Your task to perform on an android device: turn pop-ups off in chrome Image 0: 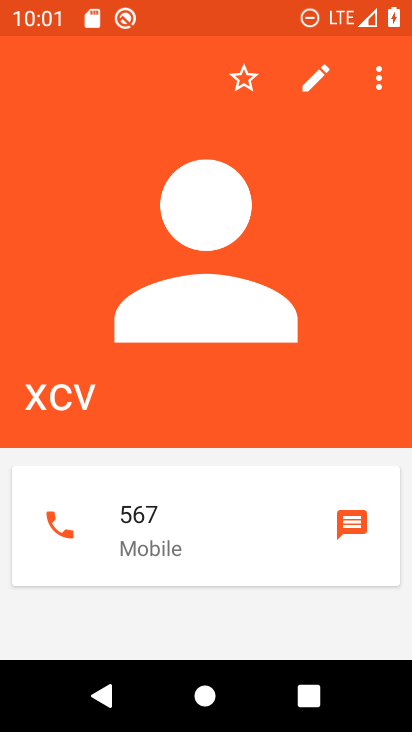
Step 0: press home button
Your task to perform on an android device: turn pop-ups off in chrome Image 1: 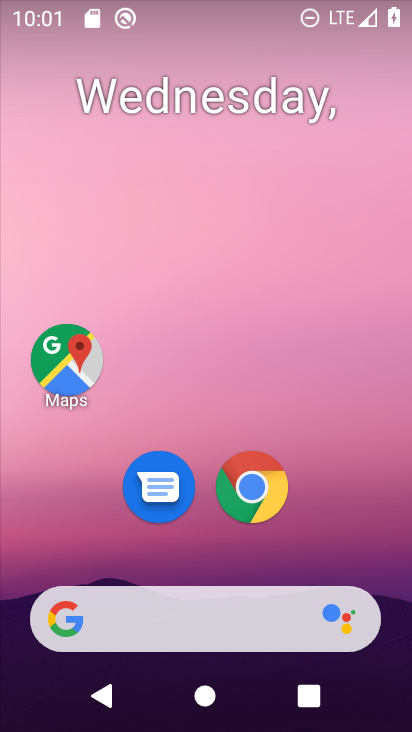
Step 1: click (245, 480)
Your task to perform on an android device: turn pop-ups off in chrome Image 2: 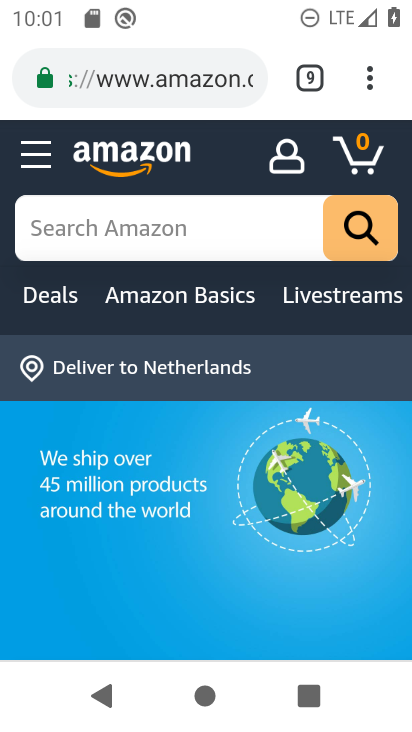
Step 2: click (372, 78)
Your task to perform on an android device: turn pop-ups off in chrome Image 3: 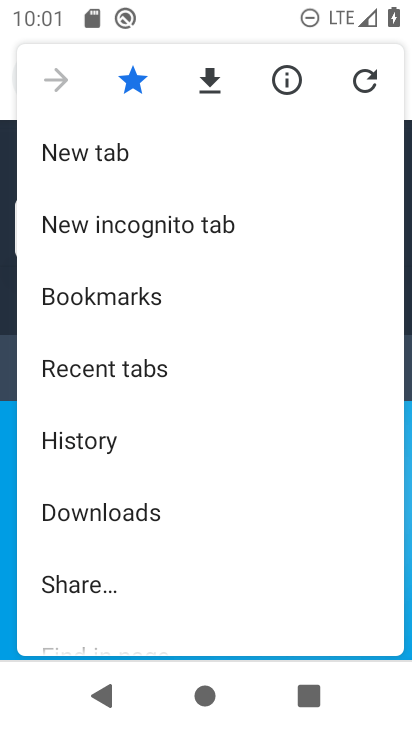
Step 3: drag from (222, 487) to (157, 152)
Your task to perform on an android device: turn pop-ups off in chrome Image 4: 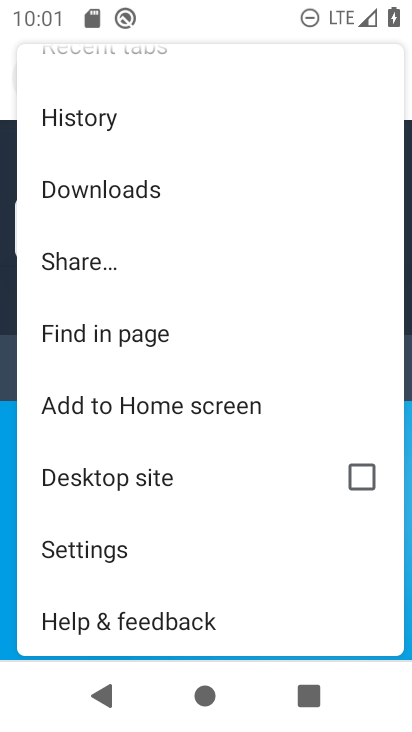
Step 4: click (103, 546)
Your task to perform on an android device: turn pop-ups off in chrome Image 5: 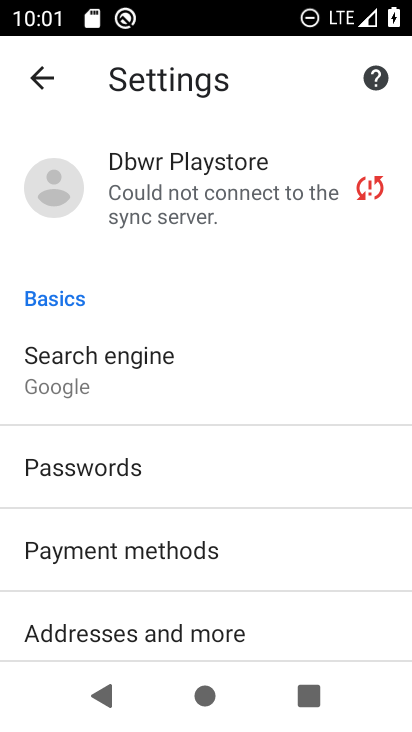
Step 5: drag from (255, 555) to (204, 105)
Your task to perform on an android device: turn pop-ups off in chrome Image 6: 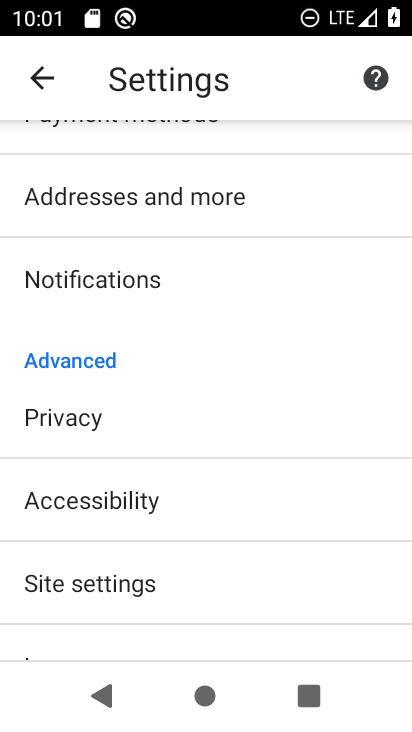
Step 6: drag from (234, 486) to (216, 302)
Your task to perform on an android device: turn pop-ups off in chrome Image 7: 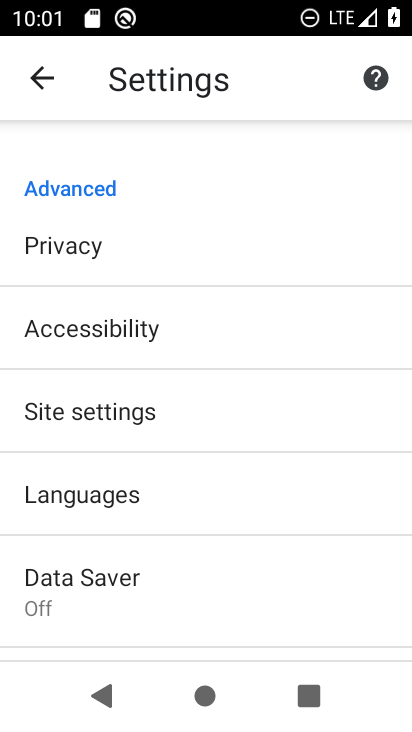
Step 7: click (110, 415)
Your task to perform on an android device: turn pop-ups off in chrome Image 8: 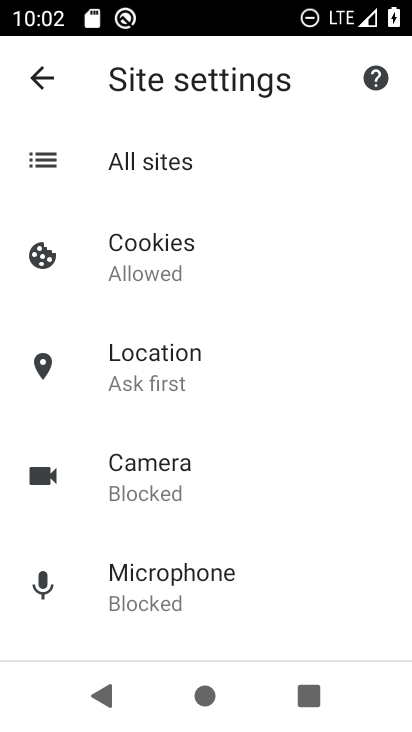
Step 8: drag from (266, 447) to (225, 144)
Your task to perform on an android device: turn pop-ups off in chrome Image 9: 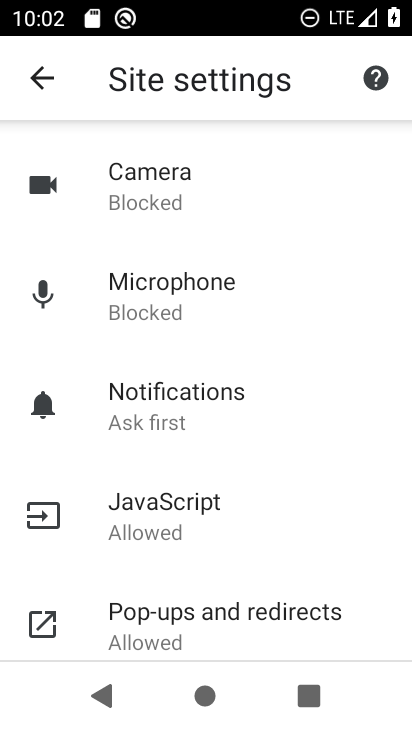
Step 9: click (189, 606)
Your task to perform on an android device: turn pop-ups off in chrome Image 10: 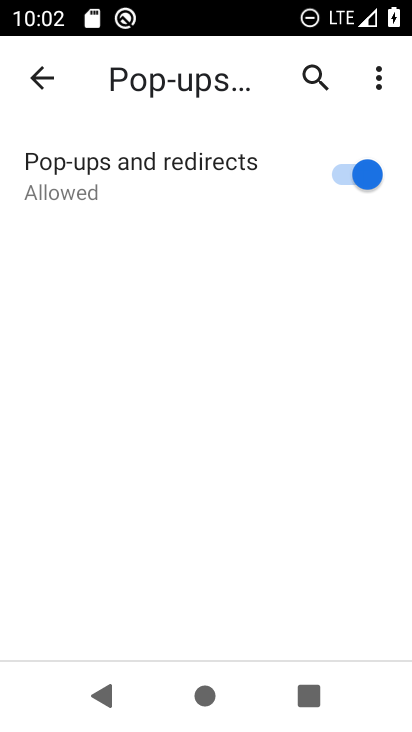
Step 10: click (357, 171)
Your task to perform on an android device: turn pop-ups off in chrome Image 11: 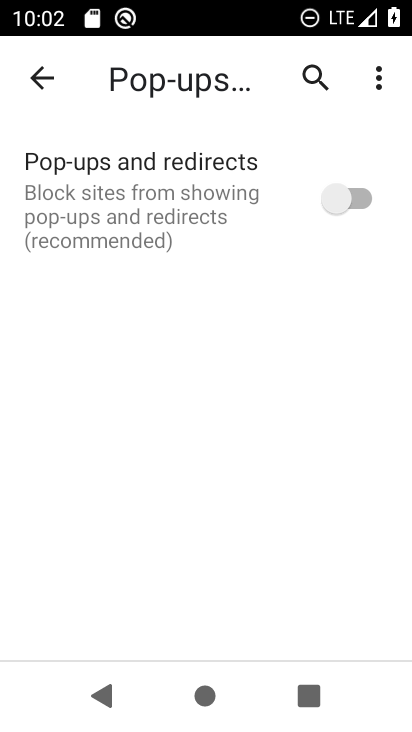
Step 11: task complete